Your task to perform on an android device: Go to internet settings Image 0: 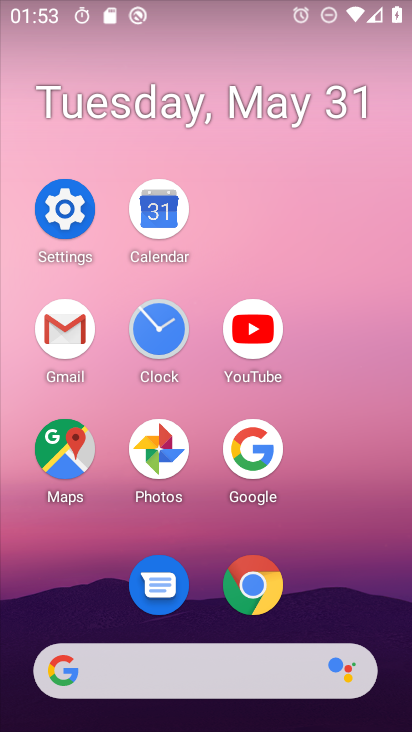
Step 0: click (72, 205)
Your task to perform on an android device: Go to internet settings Image 1: 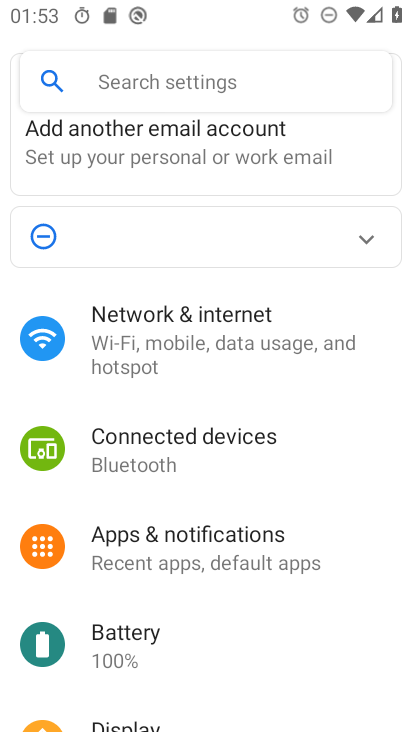
Step 1: click (200, 372)
Your task to perform on an android device: Go to internet settings Image 2: 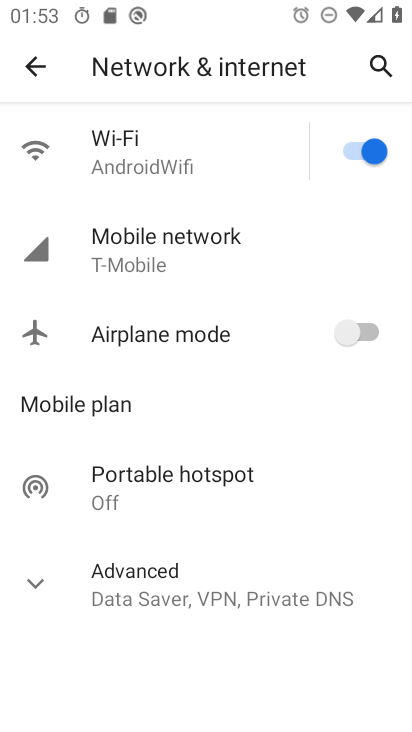
Step 2: task complete